Your task to perform on an android device: read, delete, or share a saved page in the chrome app Image 0: 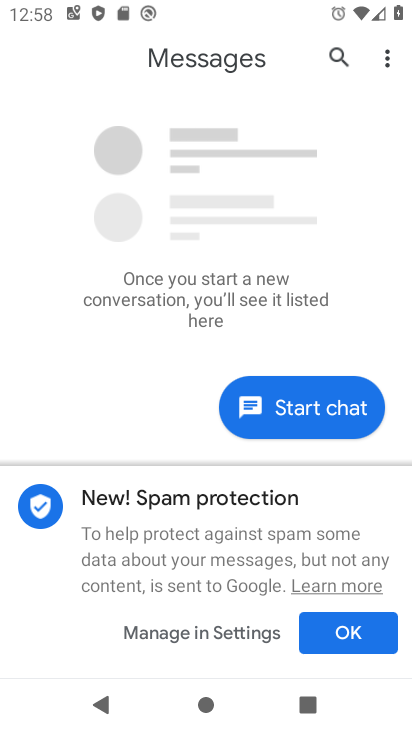
Step 0: press home button
Your task to perform on an android device: read, delete, or share a saved page in the chrome app Image 1: 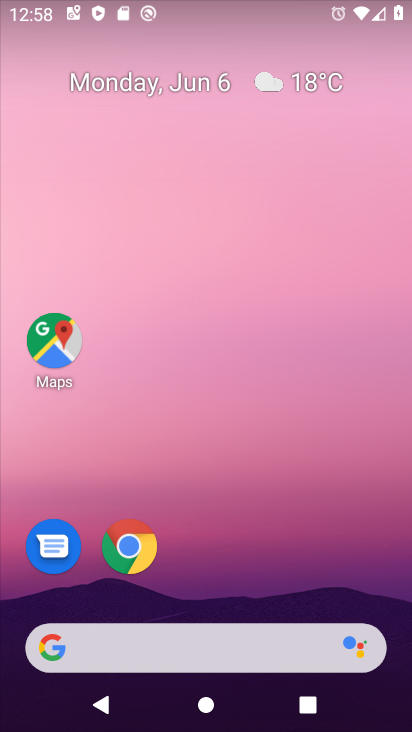
Step 1: click (134, 534)
Your task to perform on an android device: read, delete, or share a saved page in the chrome app Image 2: 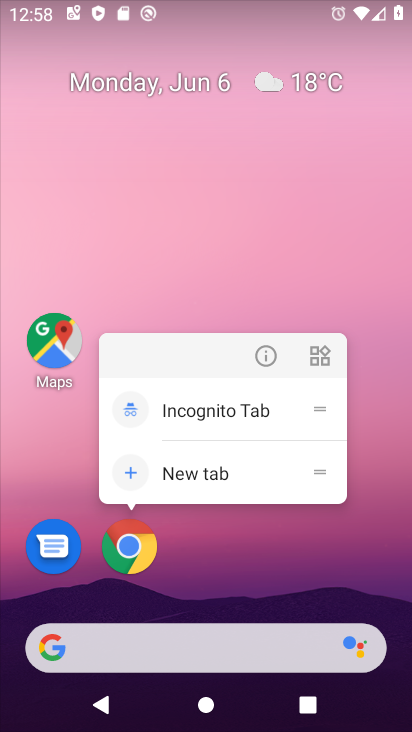
Step 2: click (137, 530)
Your task to perform on an android device: read, delete, or share a saved page in the chrome app Image 3: 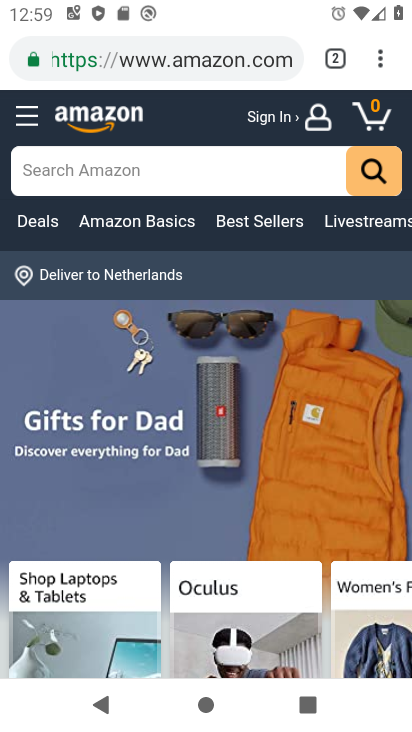
Step 3: drag from (382, 59) to (193, 378)
Your task to perform on an android device: read, delete, or share a saved page in the chrome app Image 4: 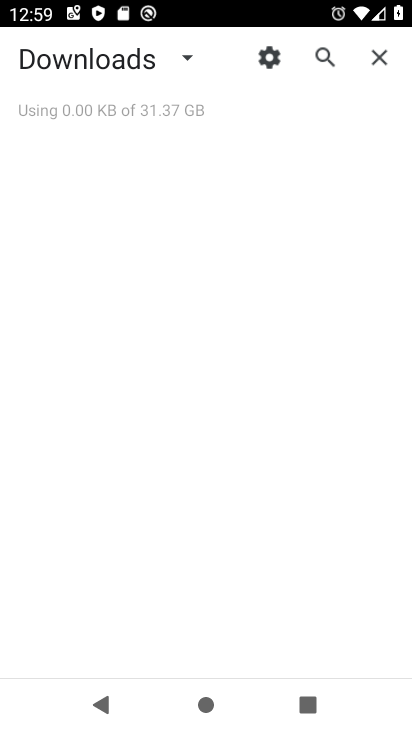
Step 4: click (185, 55)
Your task to perform on an android device: read, delete, or share a saved page in the chrome app Image 5: 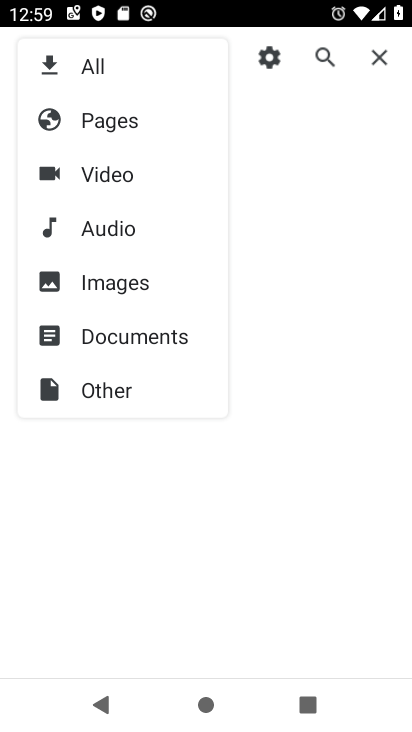
Step 5: click (134, 117)
Your task to perform on an android device: read, delete, or share a saved page in the chrome app Image 6: 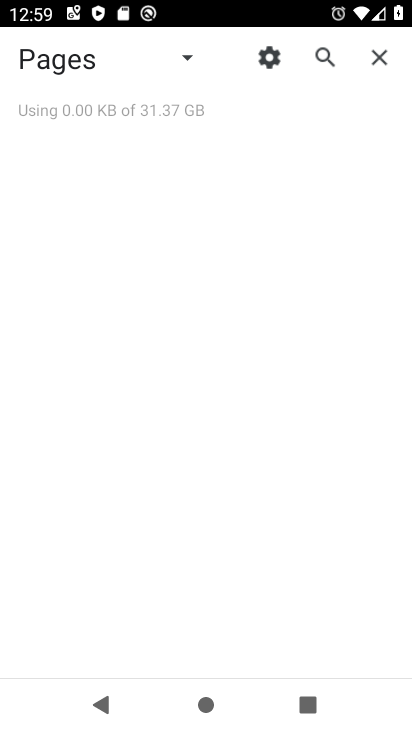
Step 6: task complete